Your task to perform on an android device: show emergency info Image 0: 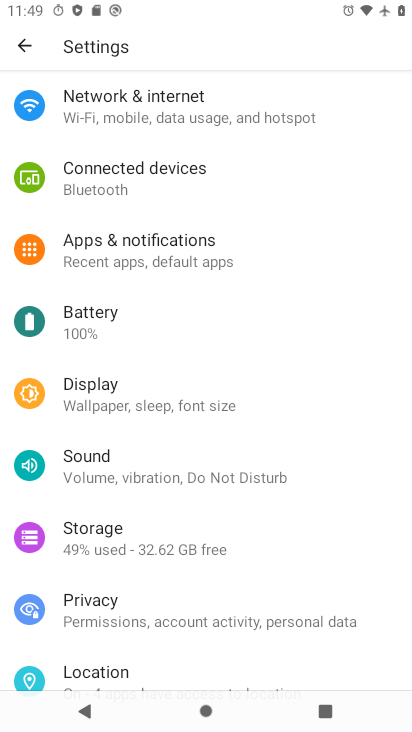
Step 0: press home button
Your task to perform on an android device: show emergency info Image 1: 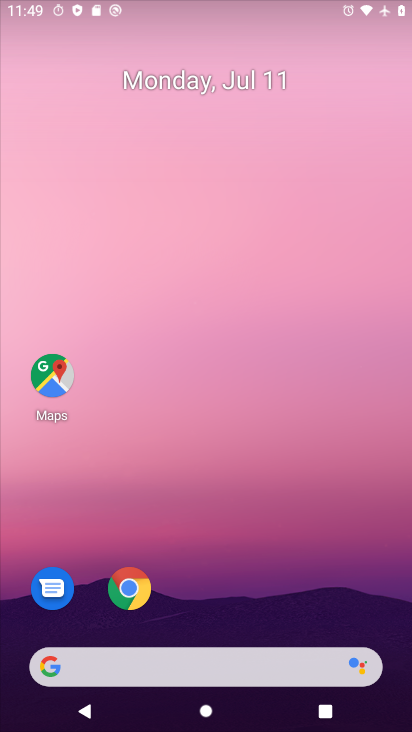
Step 1: drag from (199, 648) to (270, 112)
Your task to perform on an android device: show emergency info Image 2: 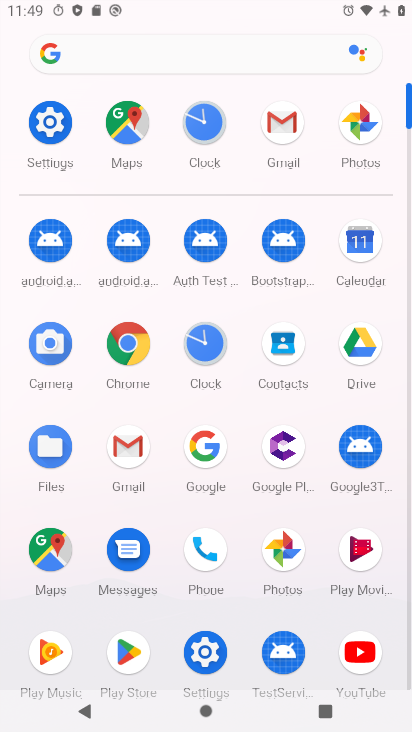
Step 2: drag from (249, 569) to (306, 226)
Your task to perform on an android device: show emergency info Image 3: 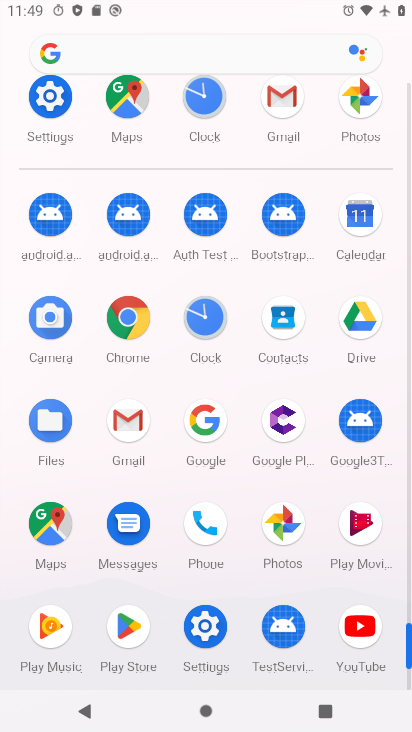
Step 3: click (212, 622)
Your task to perform on an android device: show emergency info Image 4: 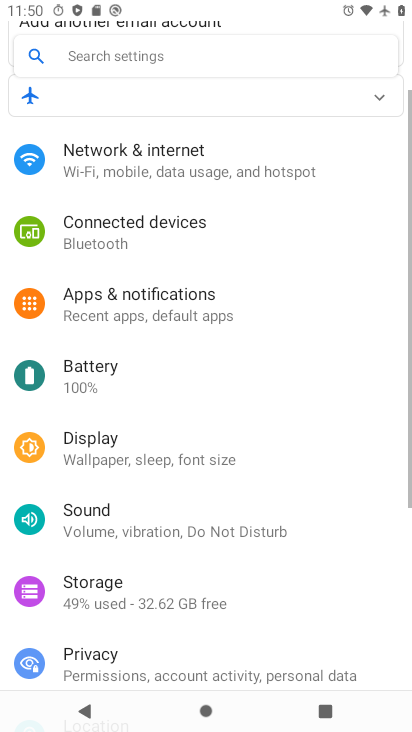
Step 4: drag from (183, 639) to (297, 175)
Your task to perform on an android device: show emergency info Image 5: 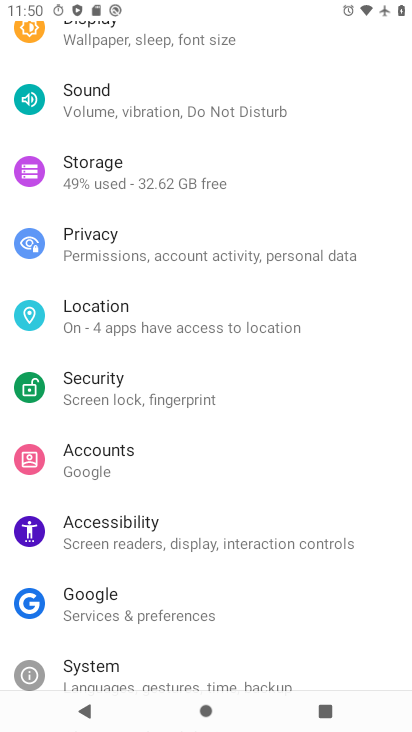
Step 5: drag from (165, 673) to (272, 161)
Your task to perform on an android device: show emergency info Image 6: 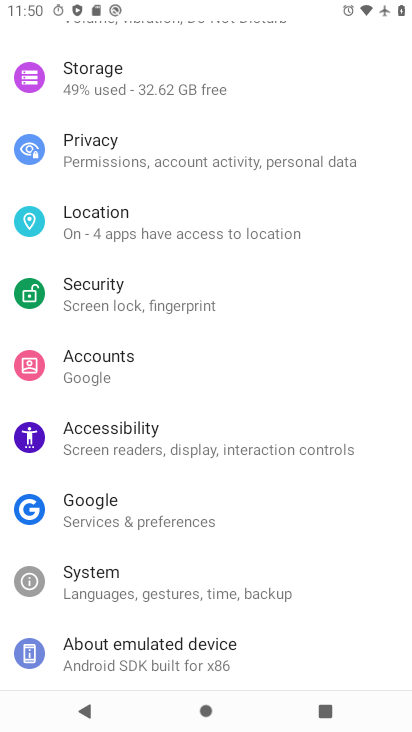
Step 6: click (146, 650)
Your task to perform on an android device: show emergency info Image 7: 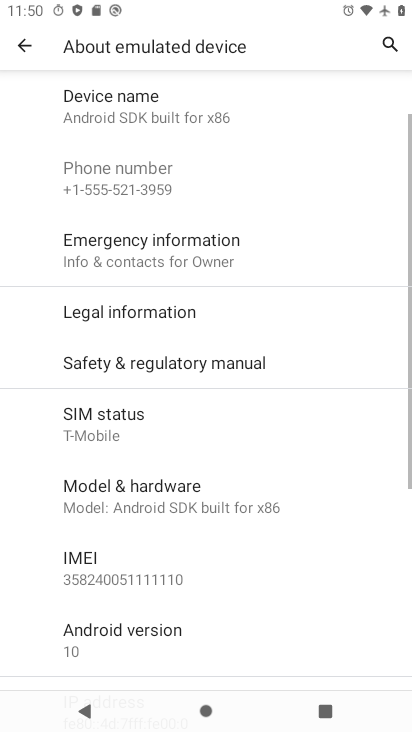
Step 7: click (181, 249)
Your task to perform on an android device: show emergency info Image 8: 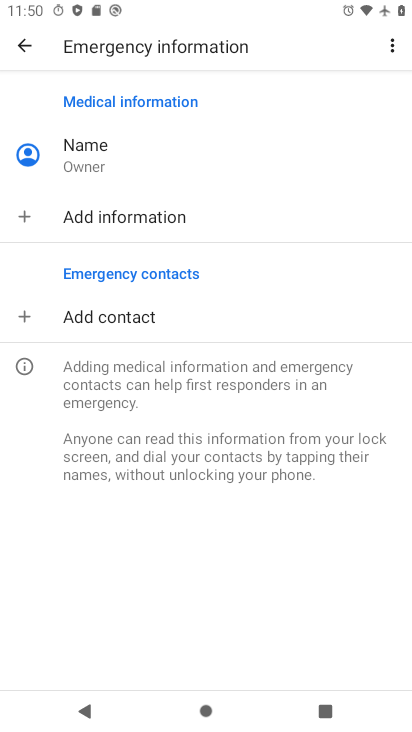
Step 8: task complete